Your task to perform on an android device: choose inbox layout in the gmail app Image 0: 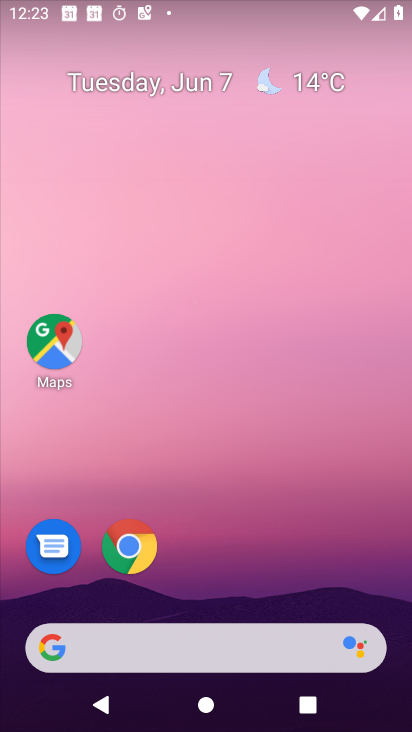
Step 0: drag from (244, 600) to (389, 101)
Your task to perform on an android device: choose inbox layout in the gmail app Image 1: 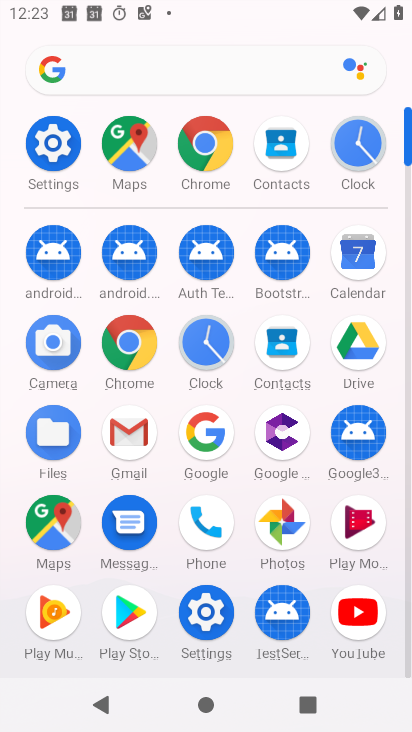
Step 1: click (137, 436)
Your task to perform on an android device: choose inbox layout in the gmail app Image 2: 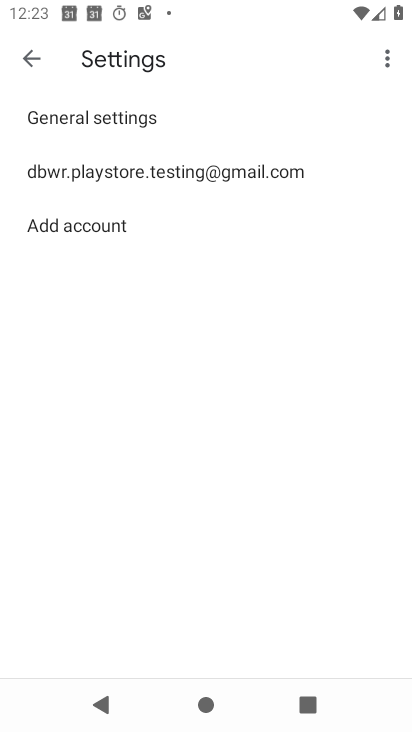
Step 2: click (116, 178)
Your task to perform on an android device: choose inbox layout in the gmail app Image 3: 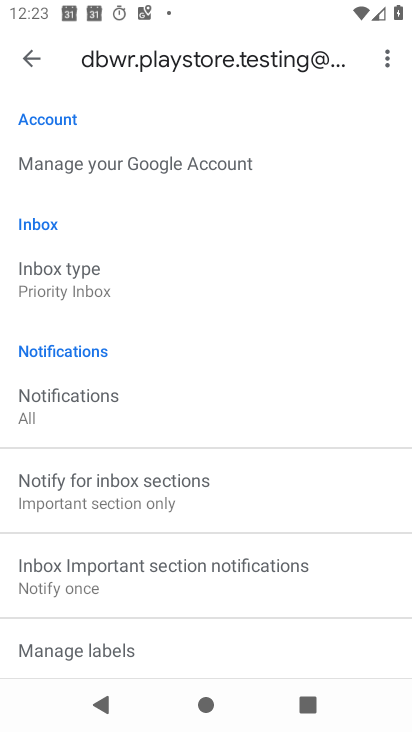
Step 3: click (73, 290)
Your task to perform on an android device: choose inbox layout in the gmail app Image 4: 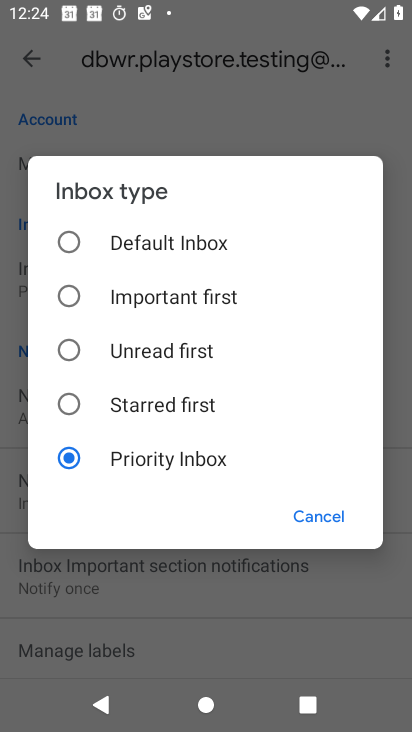
Step 4: click (113, 243)
Your task to perform on an android device: choose inbox layout in the gmail app Image 5: 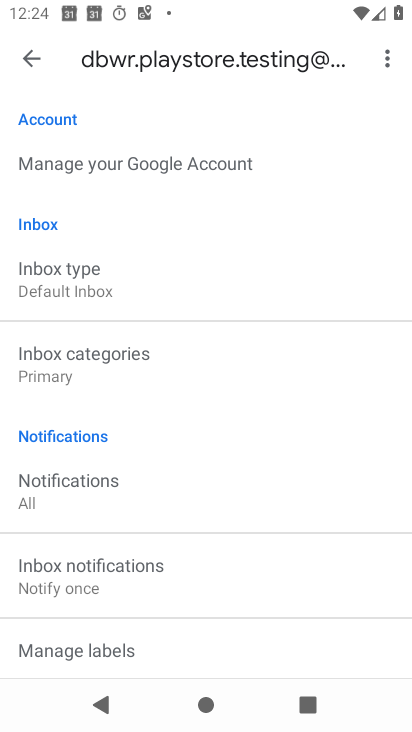
Step 5: task complete